Your task to perform on an android device: Go to battery settings Image 0: 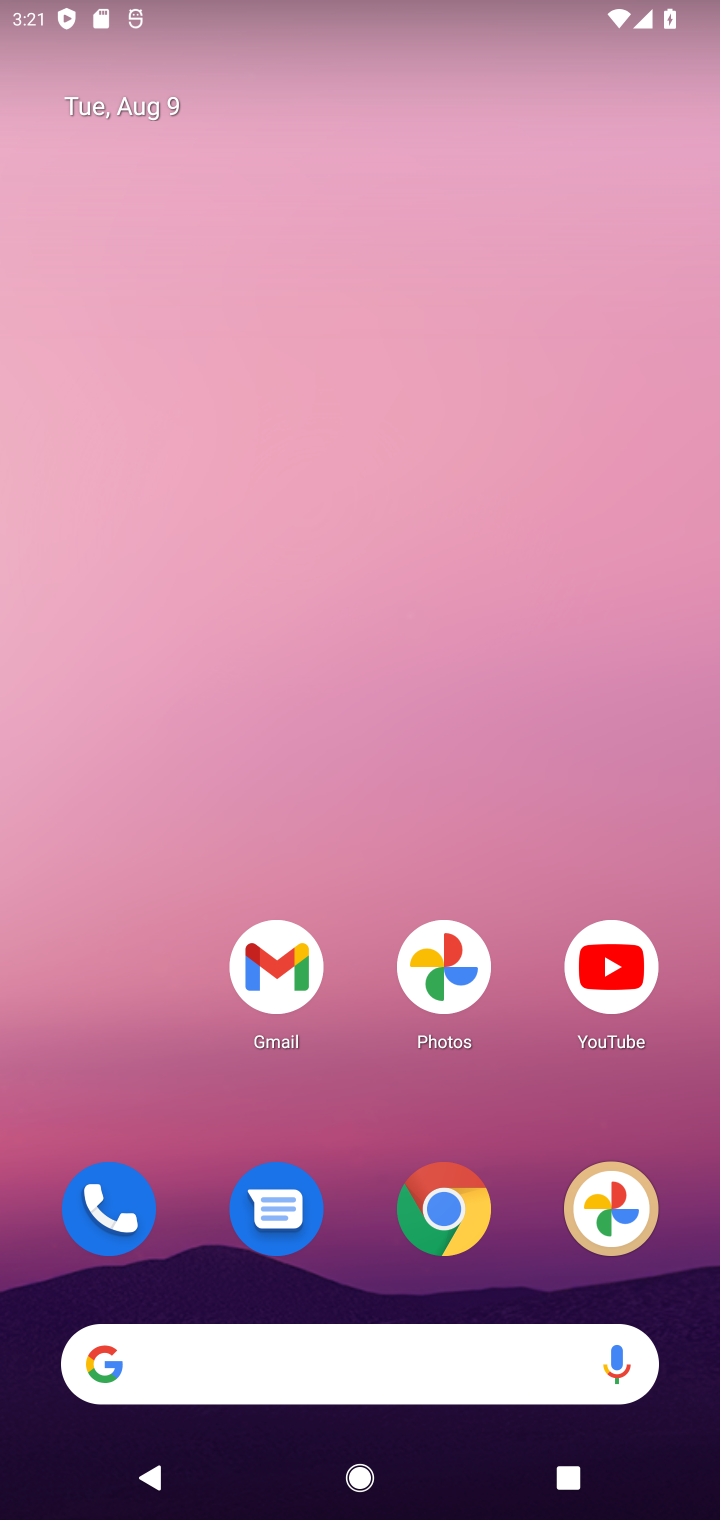
Step 0: drag from (376, 1309) to (458, 189)
Your task to perform on an android device: Go to battery settings Image 1: 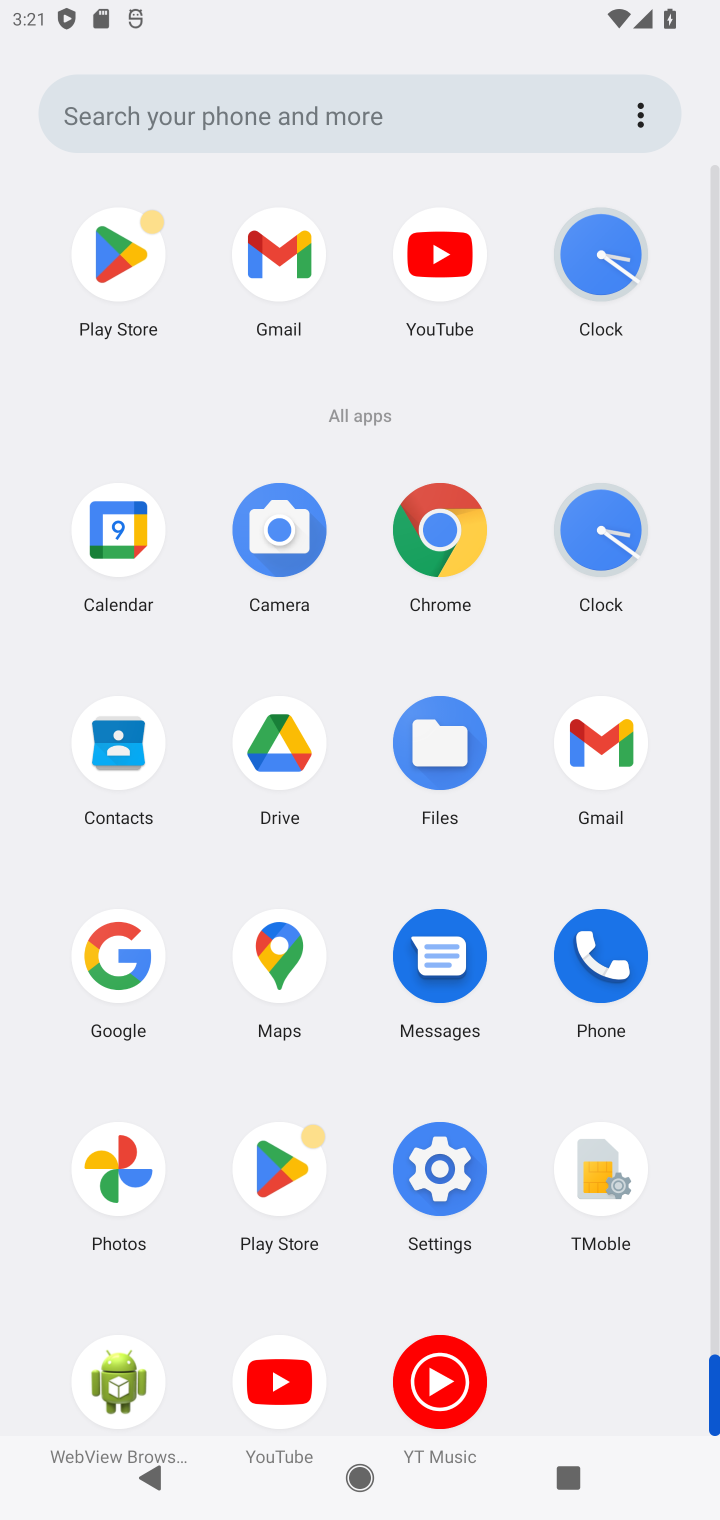
Step 1: click (436, 1142)
Your task to perform on an android device: Go to battery settings Image 2: 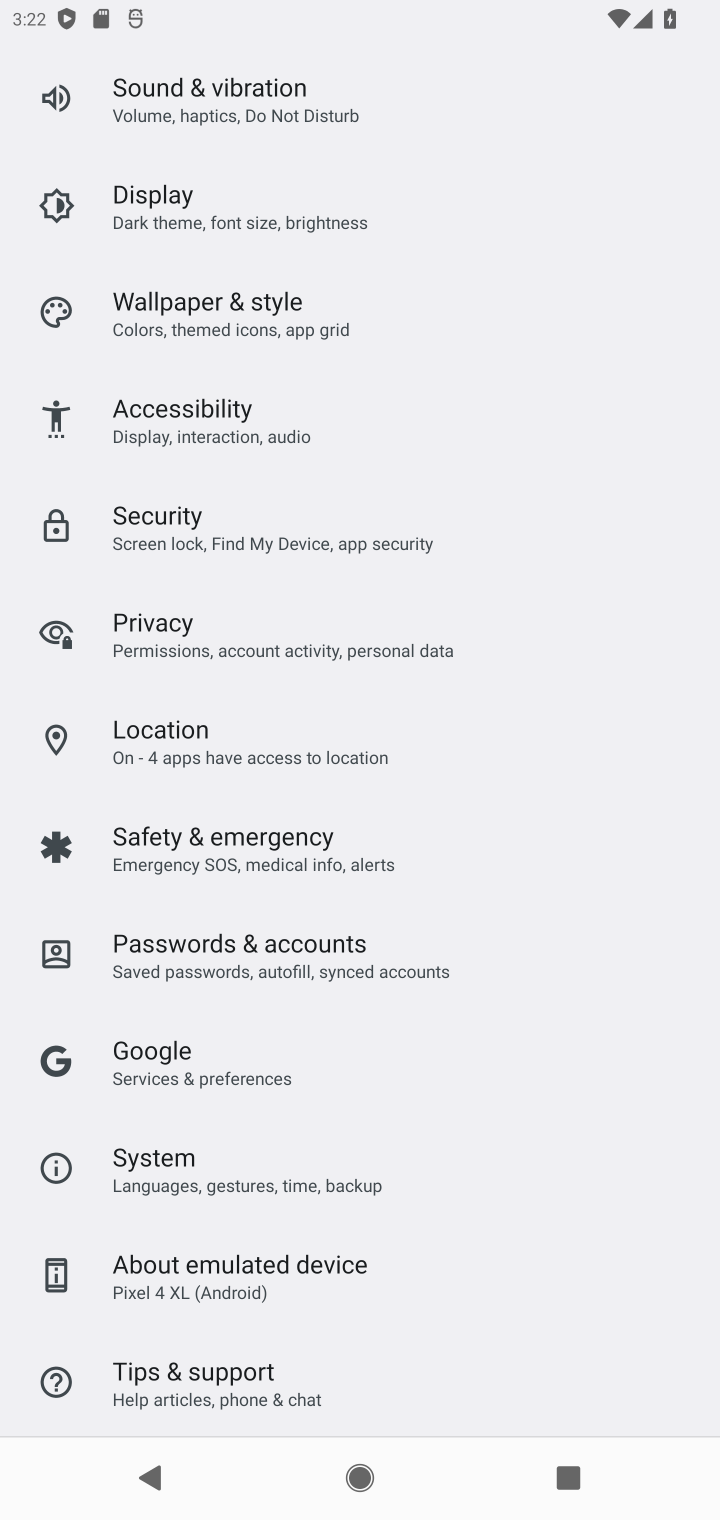
Step 2: drag from (188, 274) to (188, 1010)
Your task to perform on an android device: Go to battery settings Image 3: 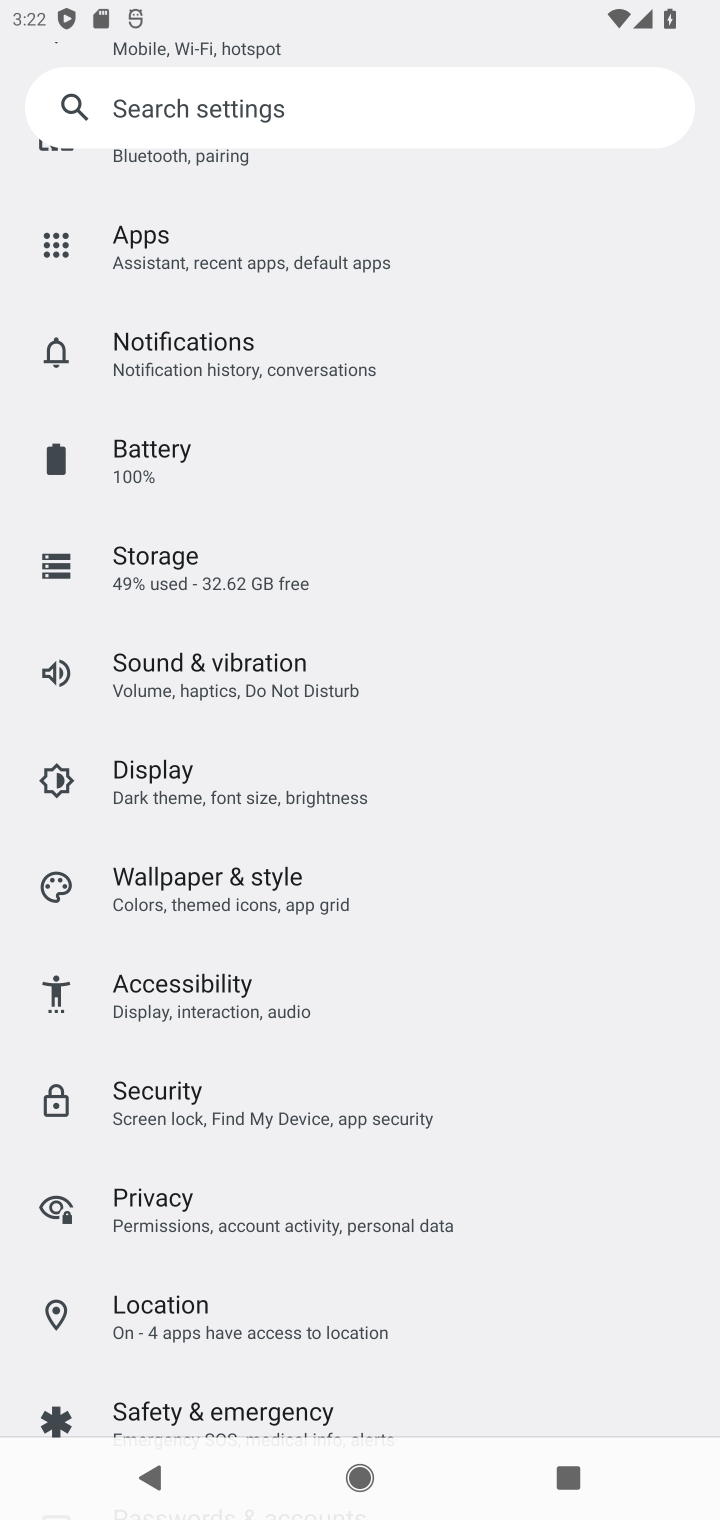
Step 3: click (147, 439)
Your task to perform on an android device: Go to battery settings Image 4: 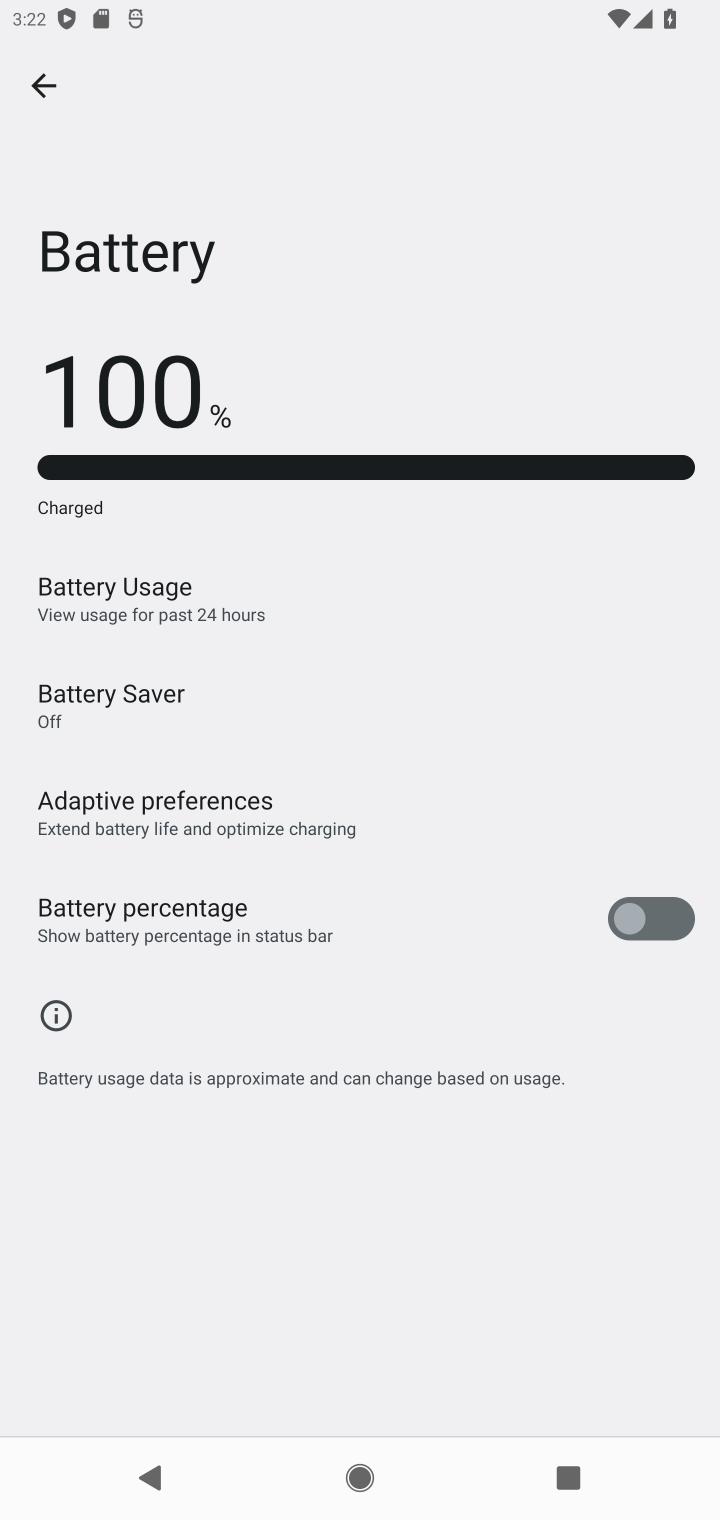
Step 4: task complete